Your task to perform on an android device: open the mobile data screen to see how much data has been used Image 0: 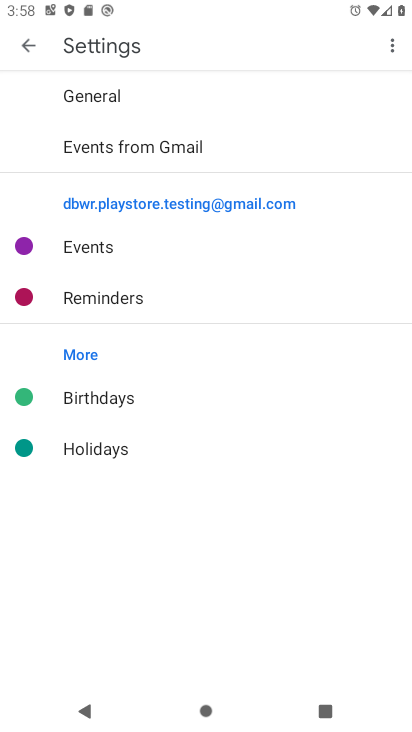
Step 0: press home button
Your task to perform on an android device: open the mobile data screen to see how much data has been used Image 1: 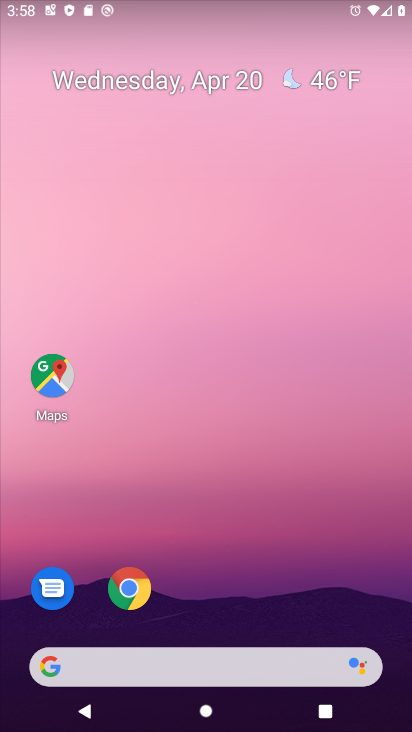
Step 1: drag from (246, 463) to (234, 38)
Your task to perform on an android device: open the mobile data screen to see how much data has been used Image 2: 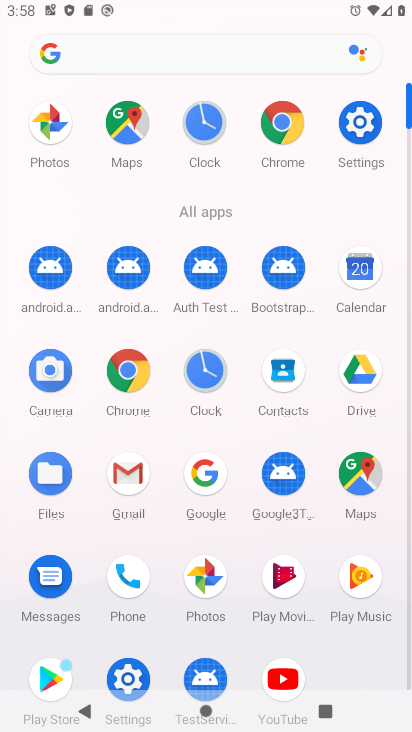
Step 2: click (355, 128)
Your task to perform on an android device: open the mobile data screen to see how much data has been used Image 3: 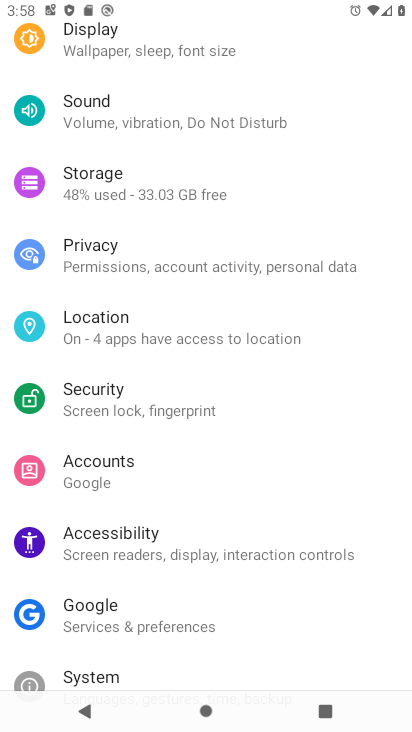
Step 3: drag from (177, 126) to (201, 537)
Your task to perform on an android device: open the mobile data screen to see how much data has been used Image 4: 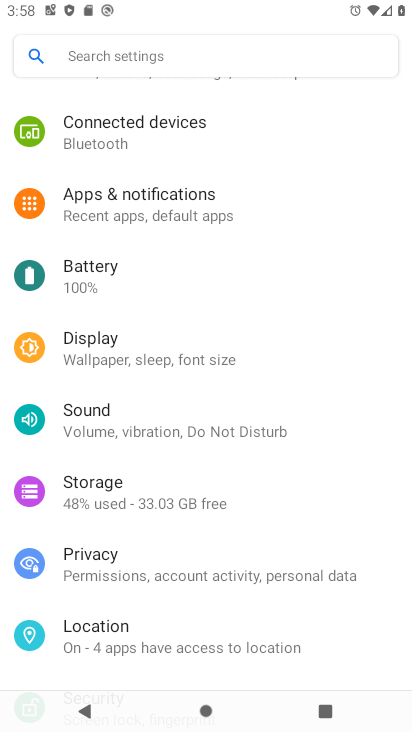
Step 4: drag from (201, 183) to (216, 626)
Your task to perform on an android device: open the mobile data screen to see how much data has been used Image 5: 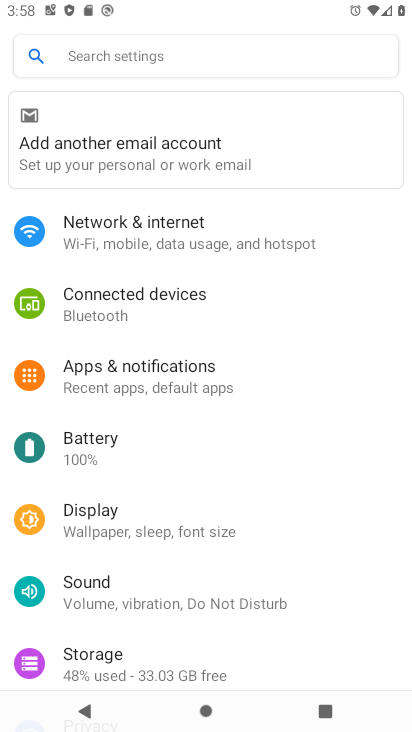
Step 5: click (194, 242)
Your task to perform on an android device: open the mobile data screen to see how much data has been used Image 6: 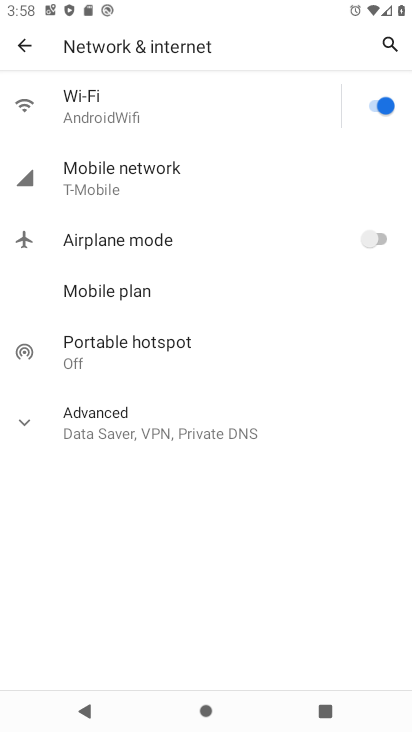
Step 6: click (132, 175)
Your task to perform on an android device: open the mobile data screen to see how much data has been used Image 7: 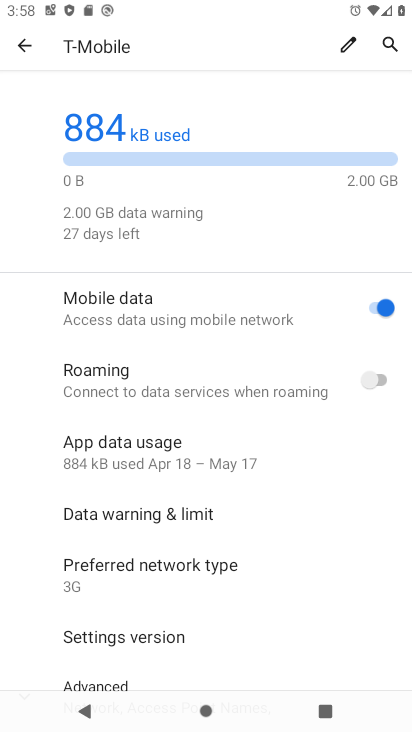
Step 7: task complete